Your task to perform on an android device: Go to network settings Image 0: 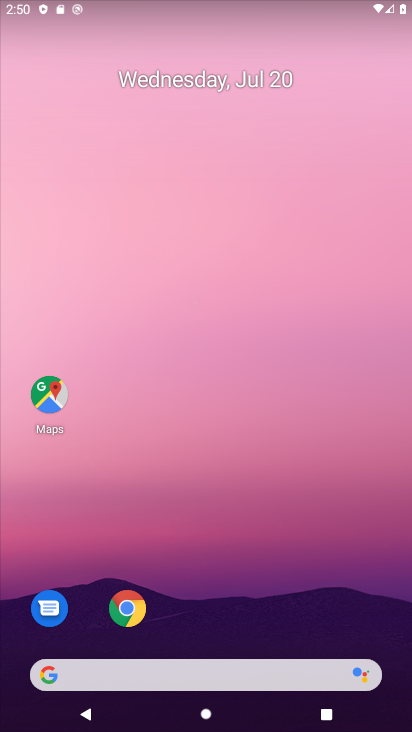
Step 0: drag from (300, 495) to (301, 94)
Your task to perform on an android device: Go to network settings Image 1: 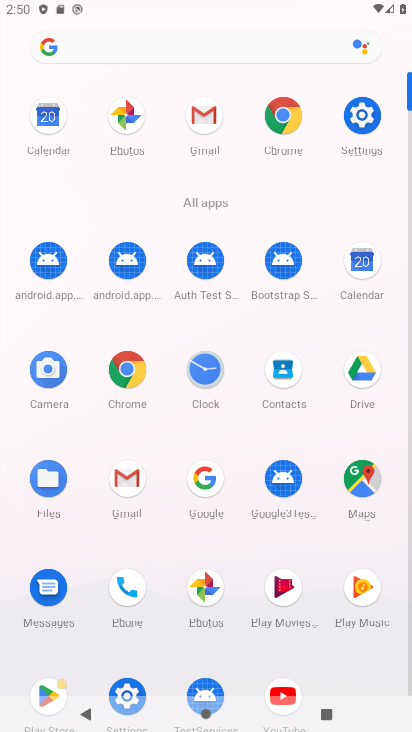
Step 1: click (377, 120)
Your task to perform on an android device: Go to network settings Image 2: 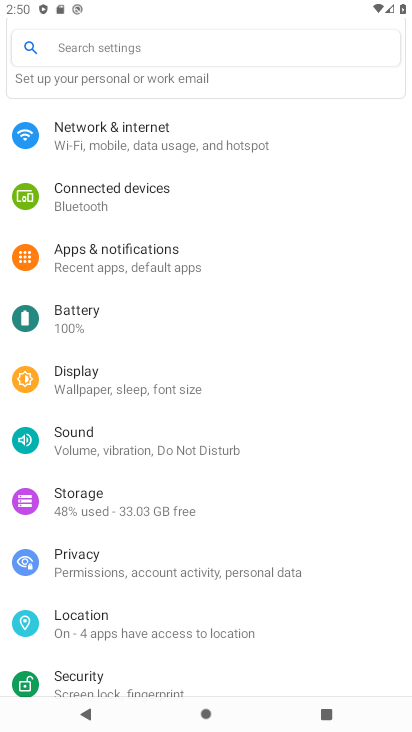
Step 2: click (192, 149)
Your task to perform on an android device: Go to network settings Image 3: 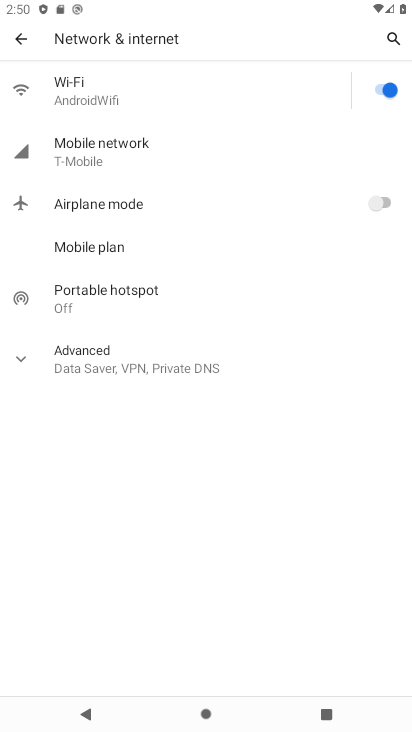
Step 3: task complete